Your task to perform on an android device: Go to Amazon Image 0: 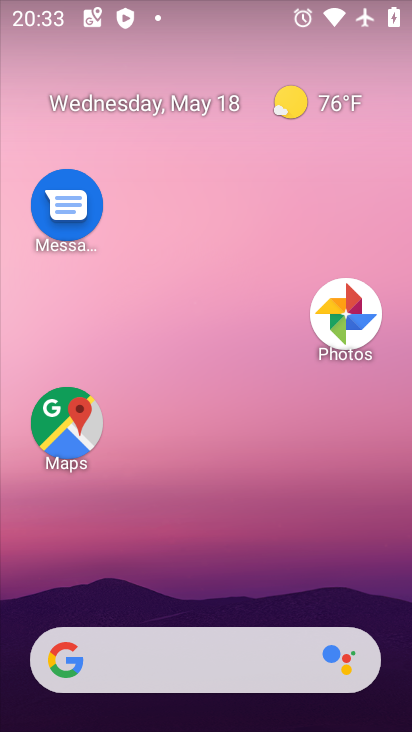
Step 0: drag from (270, 616) to (184, 36)
Your task to perform on an android device: Go to Amazon Image 1: 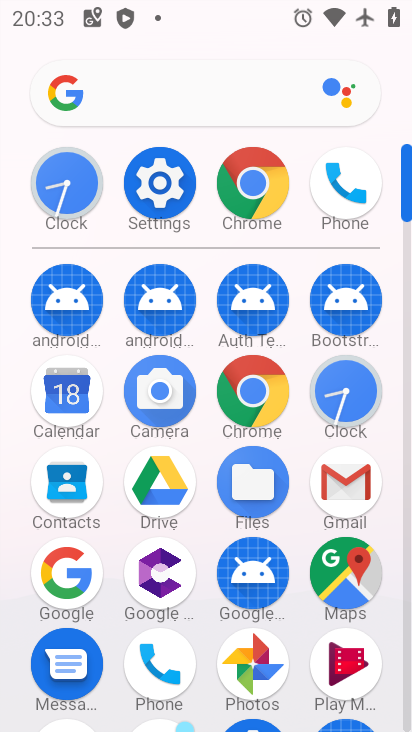
Step 1: click (269, 399)
Your task to perform on an android device: Go to Amazon Image 2: 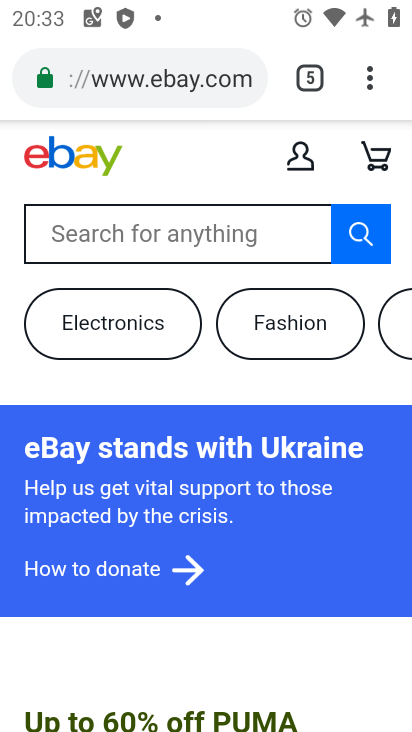
Step 2: click (306, 76)
Your task to perform on an android device: Go to Amazon Image 3: 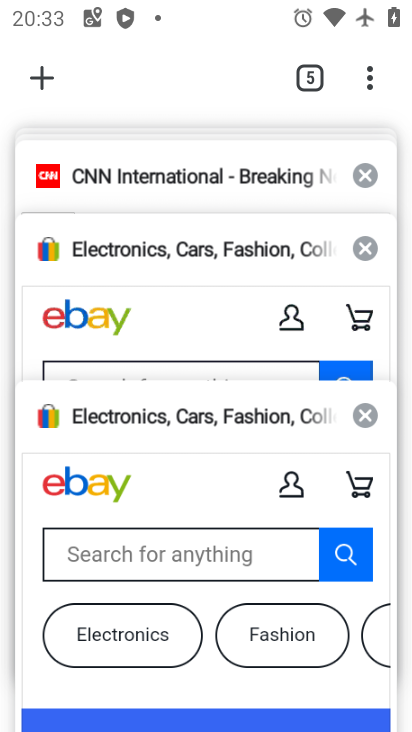
Step 3: click (43, 78)
Your task to perform on an android device: Go to Amazon Image 4: 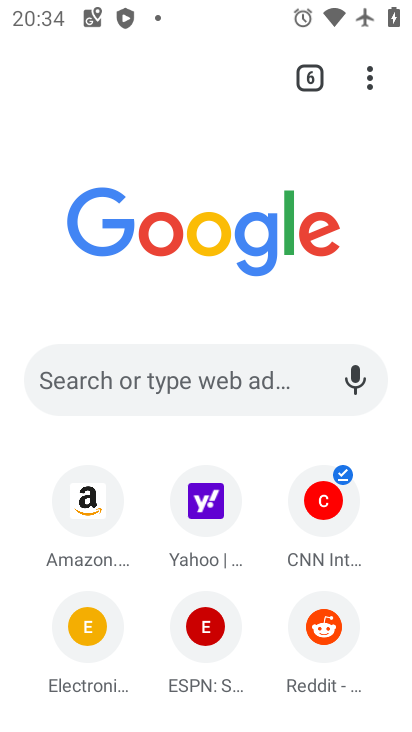
Step 4: click (102, 511)
Your task to perform on an android device: Go to Amazon Image 5: 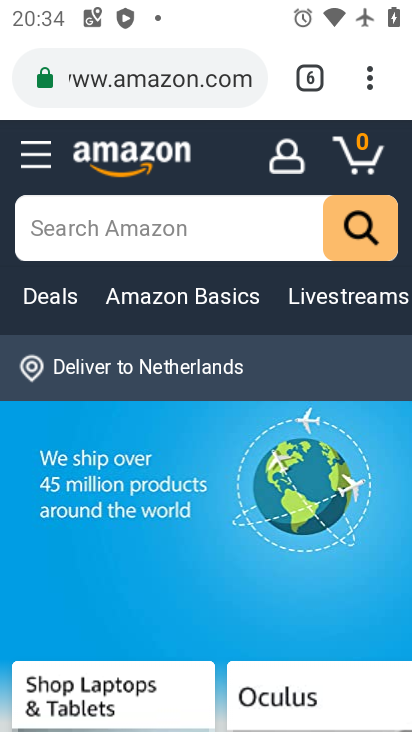
Step 5: task complete